Your task to perform on an android device: Do I have any events today? Image 0: 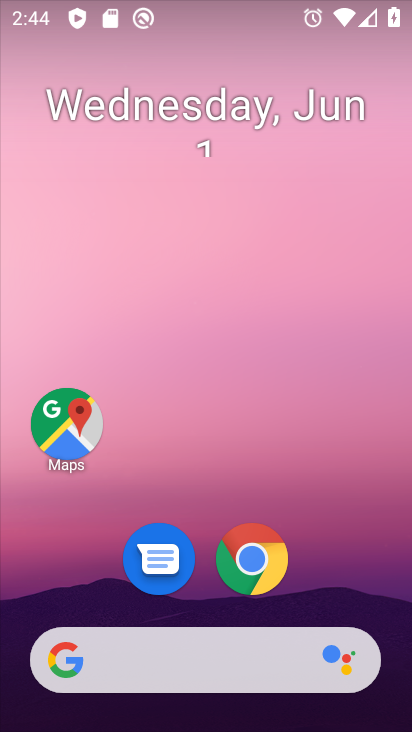
Step 0: drag from (199, 609) to (195, 2)
Your task to perform on an android device: Do I have any events today? Image 1: 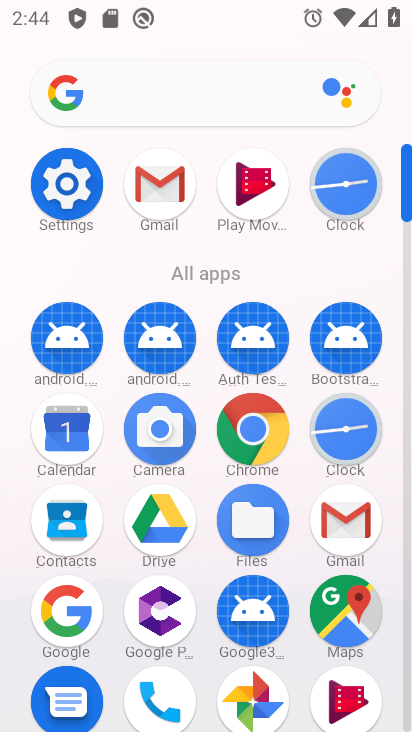
Step 1: click (67, 427)
Your task to perform on an android device: Do I have any events today? Image 2: 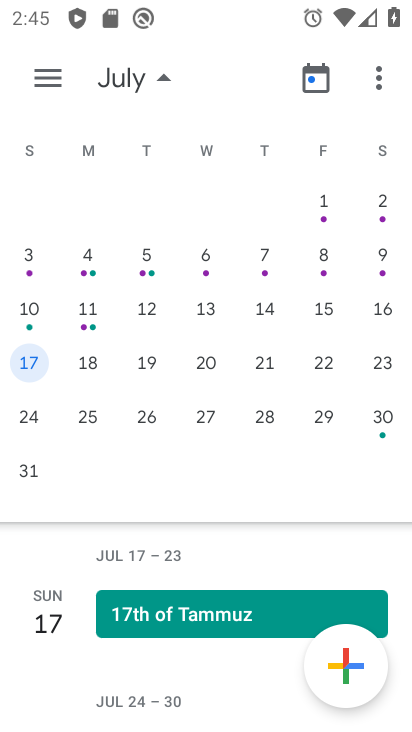
Step 2: drag from (103, 268) to (400, 274)
Your task to perform on an android device: Do I have any events today? Image 3: 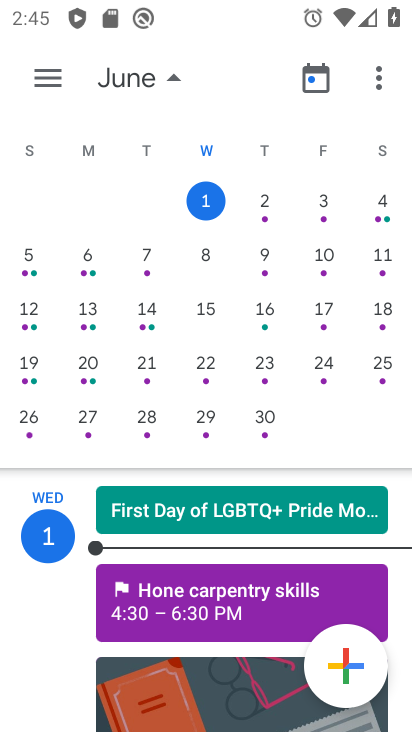
Step 3: click (212, 201)
Your task to perform on an android device: Do I have any events today? Image 4: 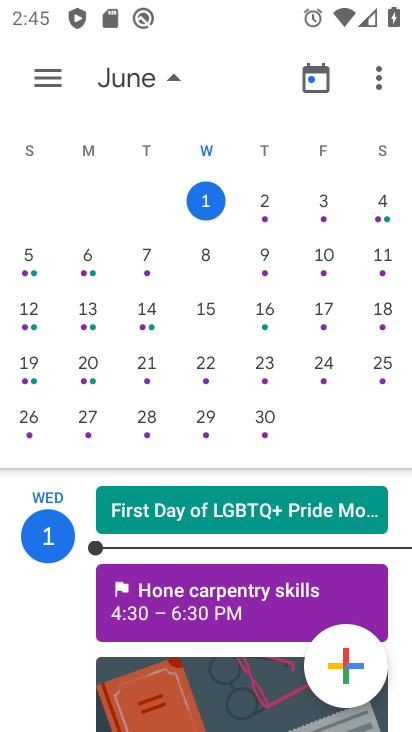
Step 4: task complete